Your task to perform on an android device: Open display settings Image 0: 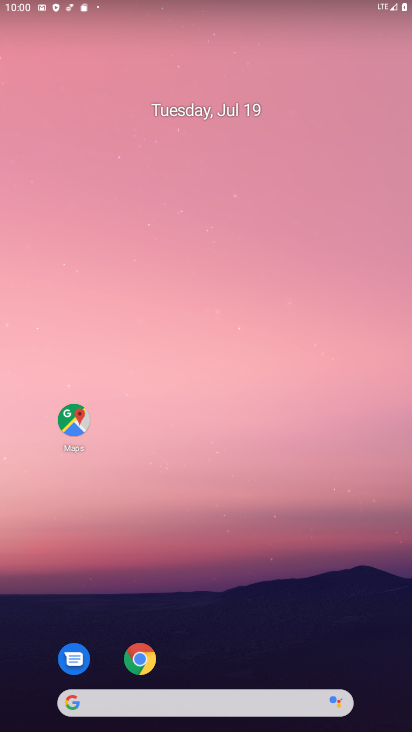
Step 0: drag from (242, 558) to (239, 209)
Your task to perform on an android device: Open display settings Image 1: 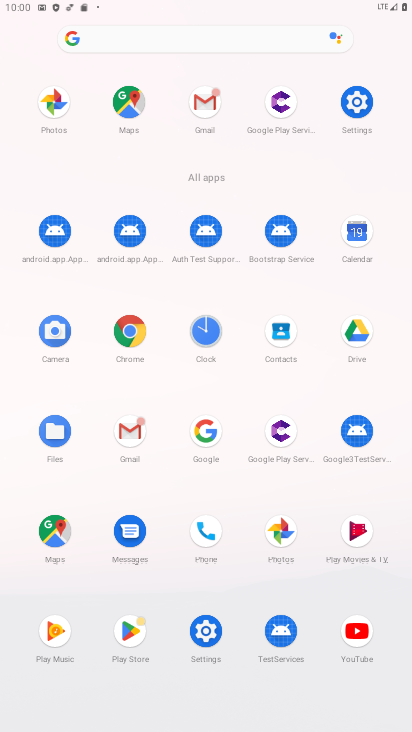
Step 1: click (198, 631)
Your task to perform on an android device: Open display settings Image 2: 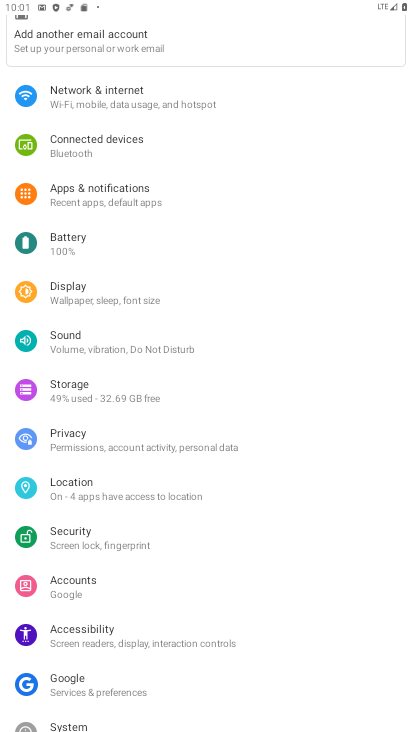
Step 2: click (85, 292)
Your task to perform on an android device: Open display settings Image 3: 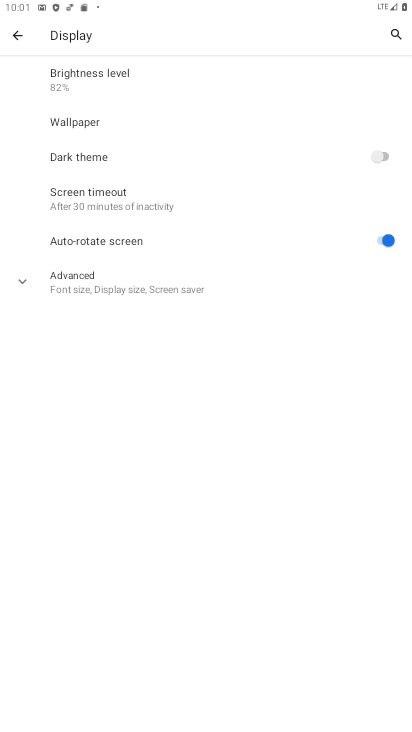
Step 3: task complete